Your task to perform on an android device: Search for Italian restaurants on Maps Image 0: 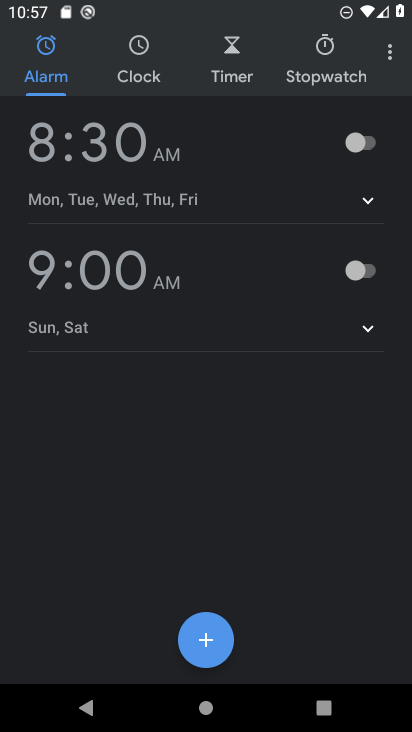
Step 0: press home button
Your task to perform on an android device: Search for Italian restaurants on Maps Image 1: 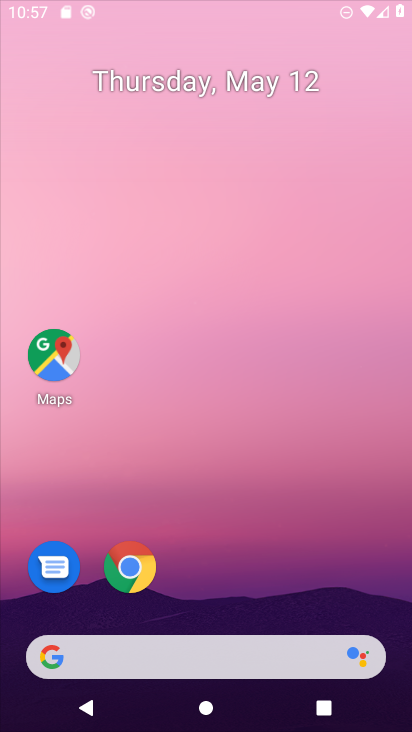
Step 1: drag from (178, 580) to (215, 213)
Your task to perform on an android device: Search for Italian restaurants on Maps Image 2: 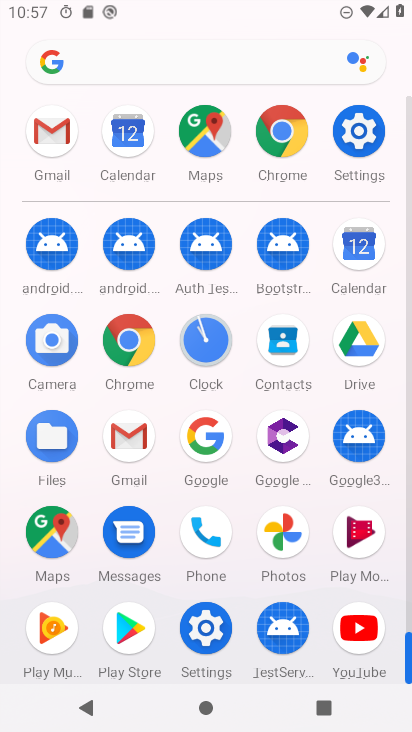
Step 2: click (61, 537)
Your task to perform on an android device: Search for Italian restaurants on Maps Image 3: 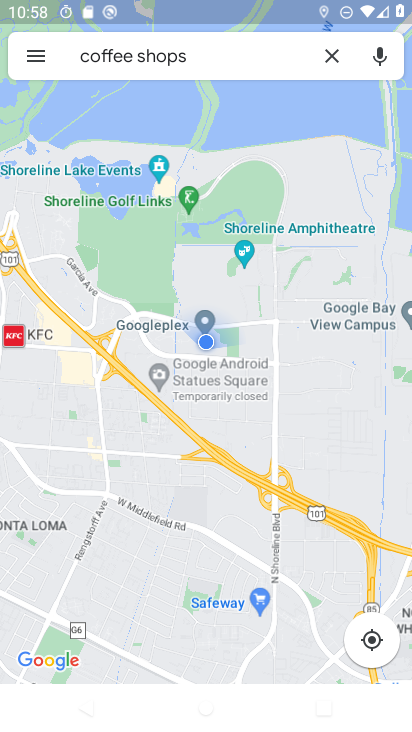
Step 3: click (322, 59)
Your task to perform on an android device: Search for Italian restaurants on Maps Image 4: 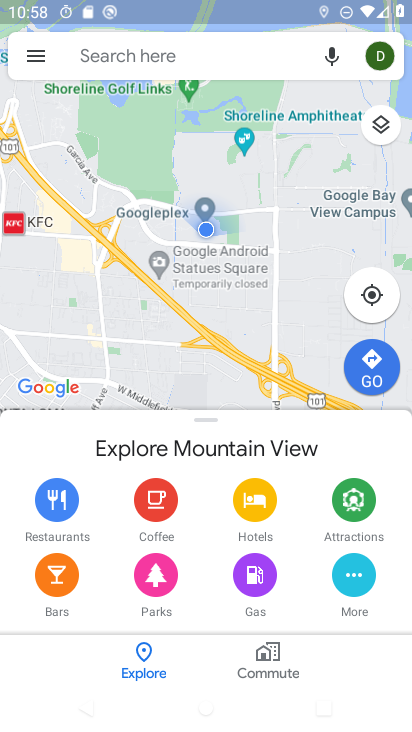
Step 4: click (115, 47)
Your task to perform on an android device: Search for Italian restaurants on Maps Image 5: 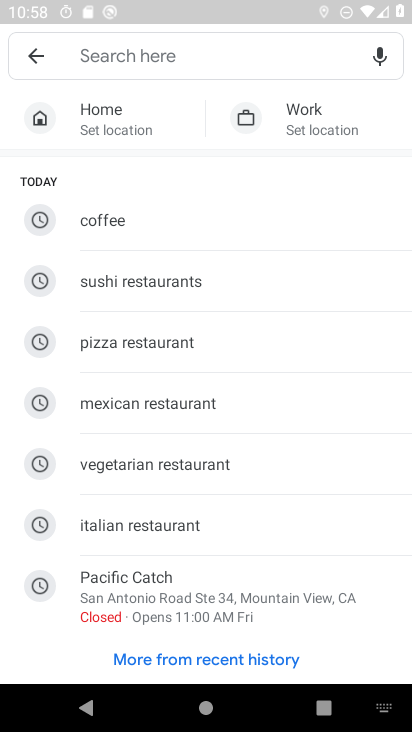
Step 5: click (136, 534)
Your task to perform on an android device: Search for Italian restaurants on Maps Image 6: 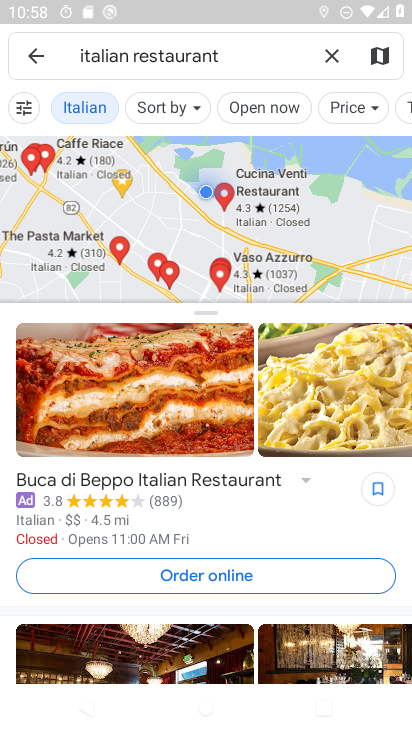
Step 6: task complete